Your task to perform on an android device: toggle airplane mode Image 0: 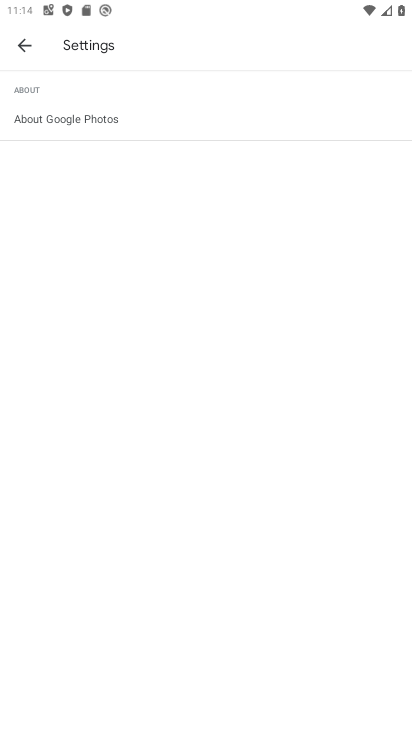
Step 0: press home button
Your task to perform on an android device: toggle airplane mode Image 1: 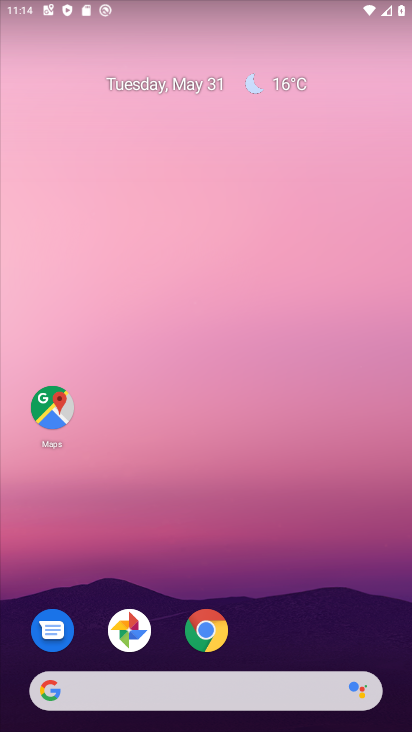
Step 1: drag from (273, 638) to (239, 273)
Your task to perform on an android device: toggle airplane mode Image 2: 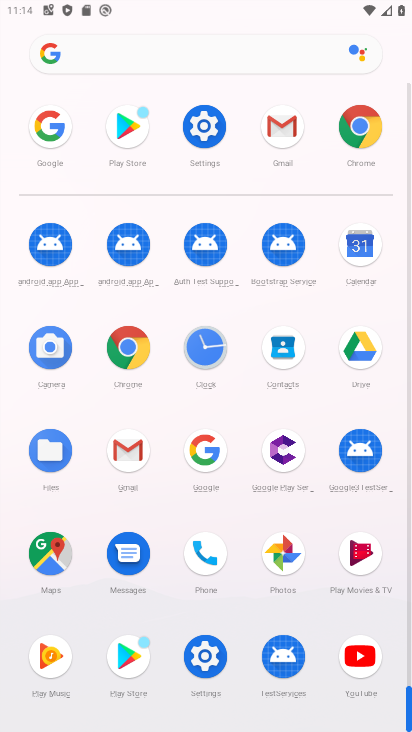
Step 2: click (187, 129)
Your task to perform on an android device: toggle airplane mode Image 3: 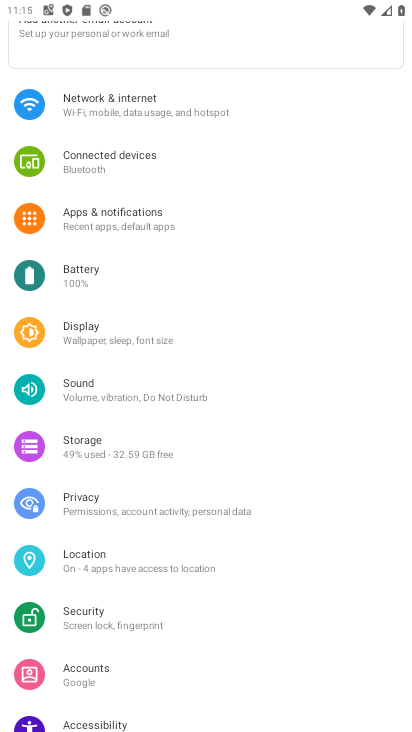
Step 3: click (157, 114)
Your task to perform on an android device: toggle airplane mode Image 4: 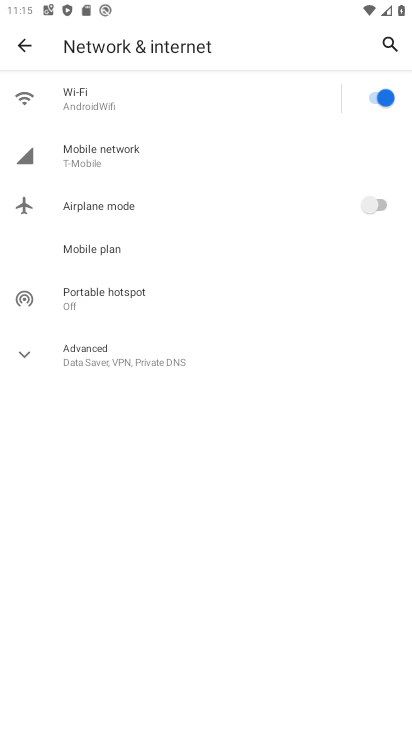
Step 4: click (369, 199)
Your task to perform on an android device: toggle airplane mode Image 5: 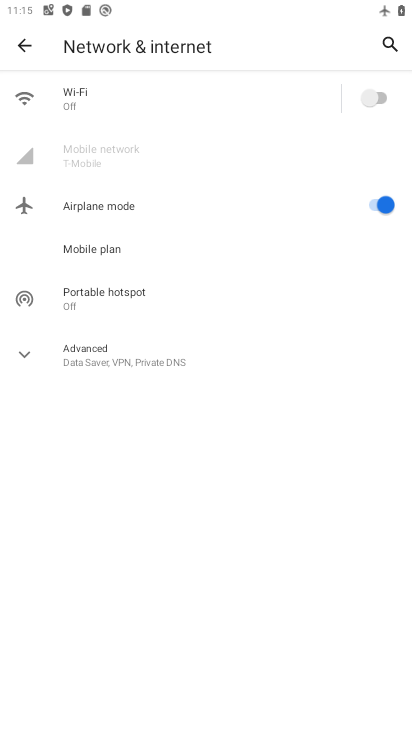
Step 5: task complete